Your task to perform on an android device: Open Amazon Image 0: 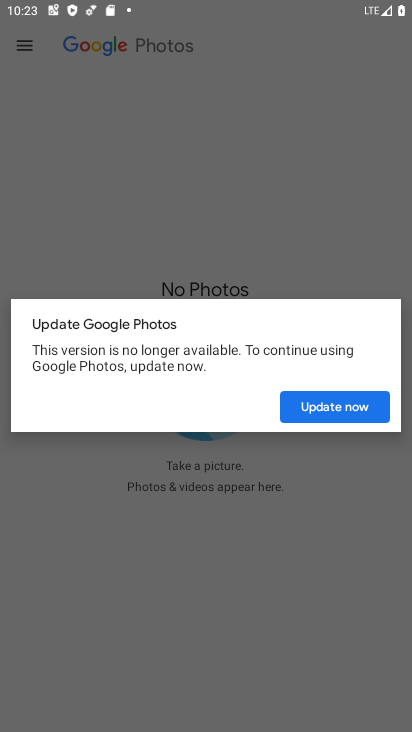
Step 0: press home button
Your task to perform on an android device: Open Amazon Image 1: 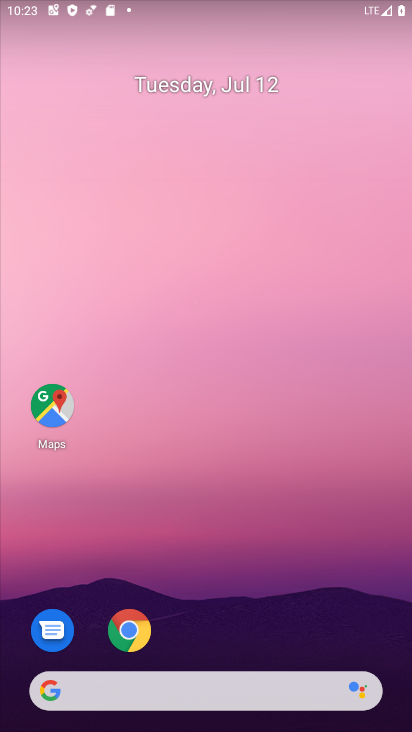
Step 1: drag from (219, 647) to (200, 115)
Your task to perform on an android device: Open Amazon Image 2: 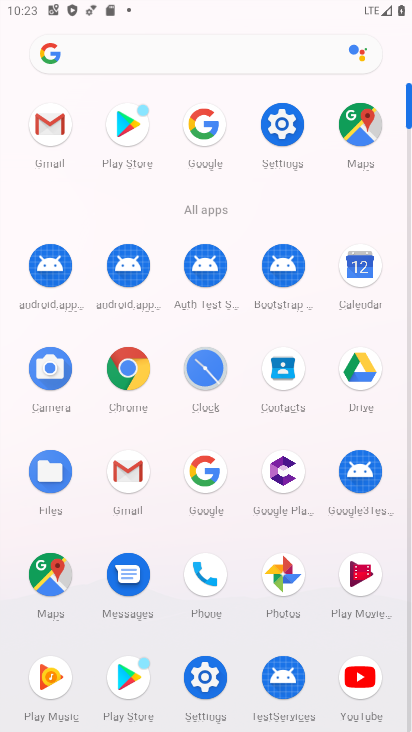
Step 2: click (129, 371)
Your task to perform on an android device: Open Amazon Image 3: 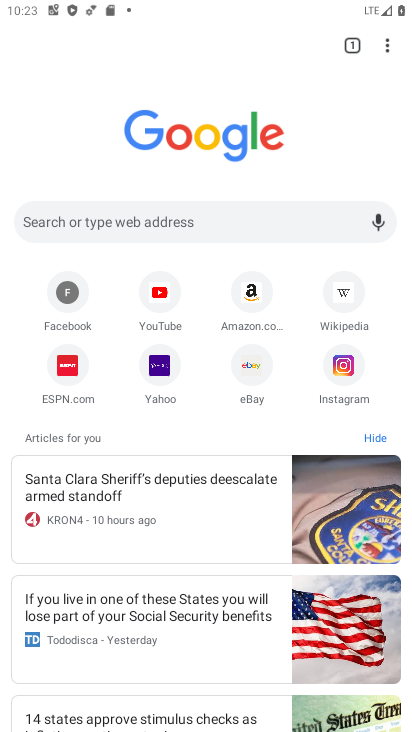
Step 3: click (253, 293)
Your task to perform on an android device: Open Amazon Image 4: 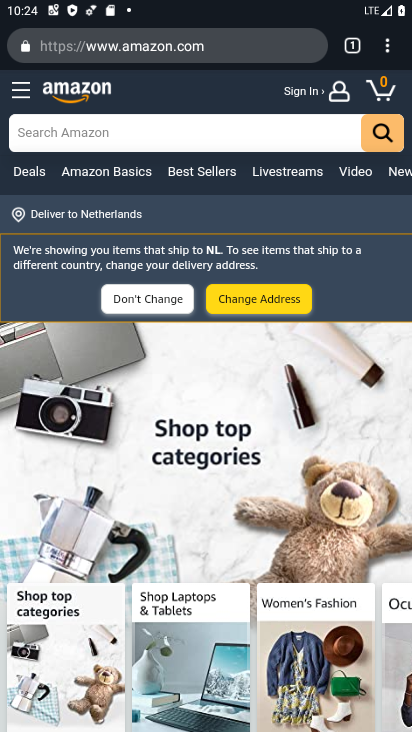
Step 4: task complete